Your task to perform on an android device: turn pop-ups off in chrome Image 0: 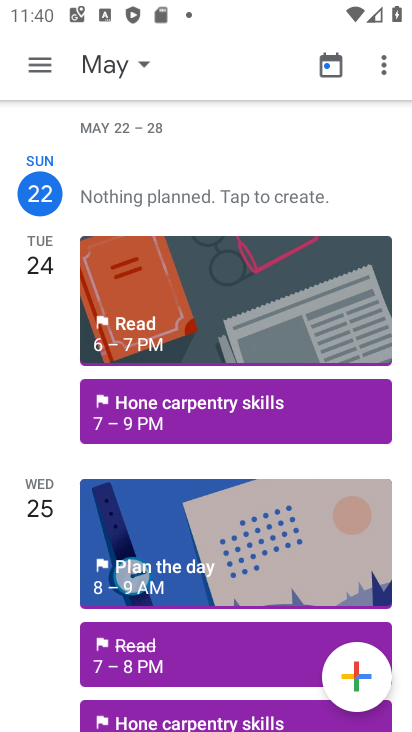
Step 0: press home button
Your task to perform on an android device: turn pop-ups off in chrome Image 1: 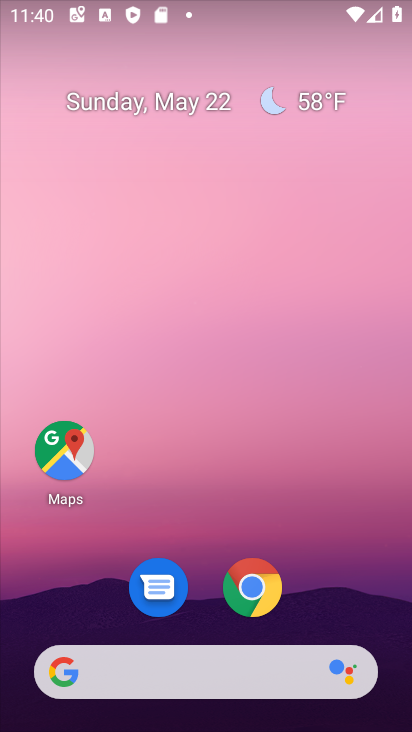
Step 1: drag from (229, 518) to (227, 115)
Your task to perform on an android device: turn pop-ups off in chrome Image 2: 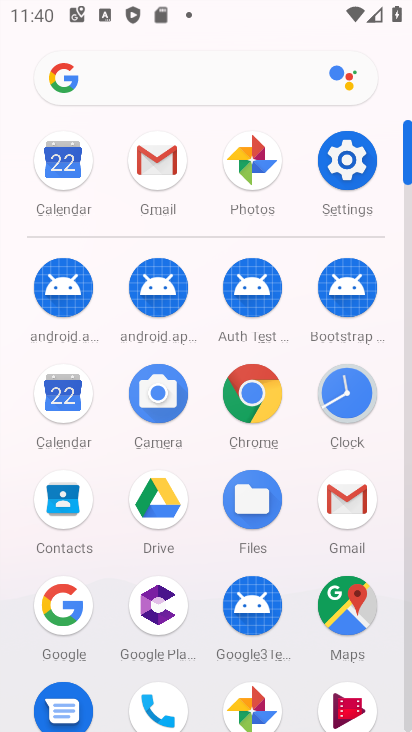
Step 2: click (249, 378)
Your task to perform on an android device: turn pop-ups off in chrome Image 3: 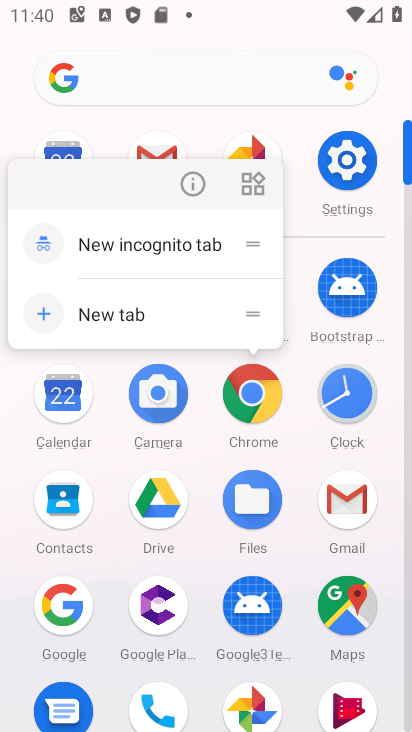
Step 3: click (249, 391)
Your task to perform on an android device: turn pop-ups off in chrome Image 4: 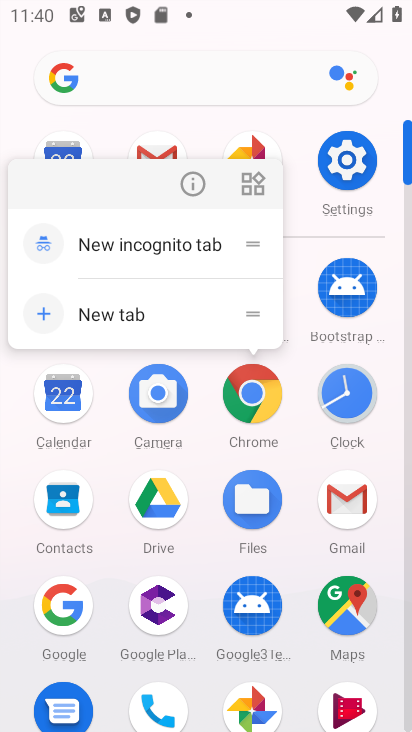
Step 4: click (249, 391)
Your task to perform on an android device: turn pop-ups off in chrome Image 5: 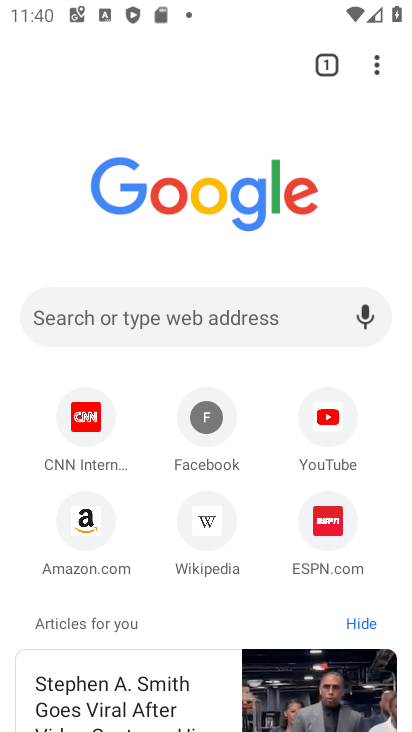
Step 5: click (367, 65)
Your task to perform on an android device: turn pop-ups off in chrome Image 6: 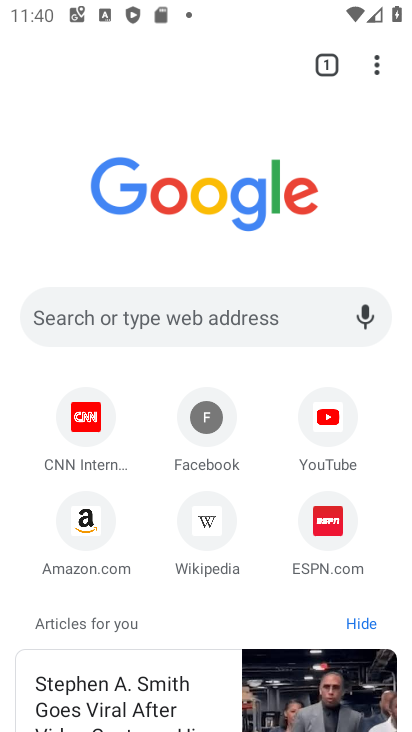
Step 6: click (371, 63)
Your task to perform on an android device: turn pop-ups off in chrome Image 7: 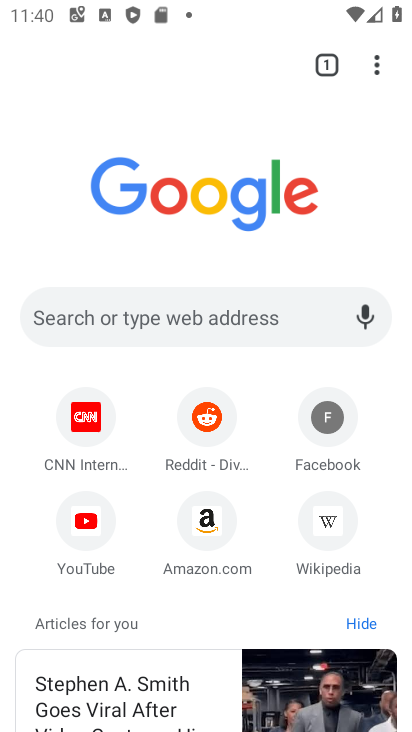
Step 7: click (371, 65)
Your task to perform on an android device: turn pop-ups off in chrome Image 8: 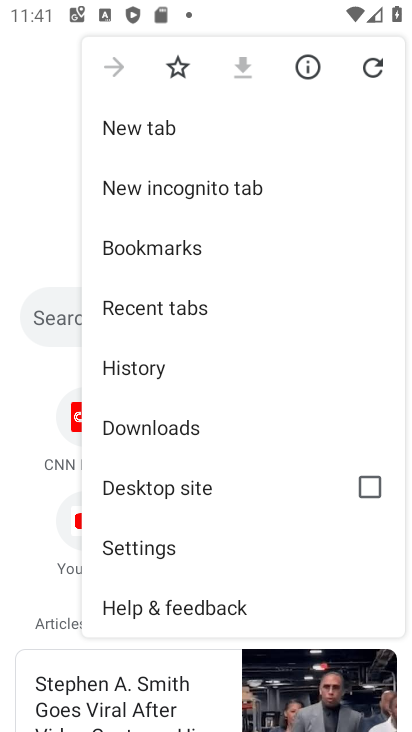
Step 8: click (191, 544)
Your task to perform on an android device: turn pop-ups off in chrome Image 9: 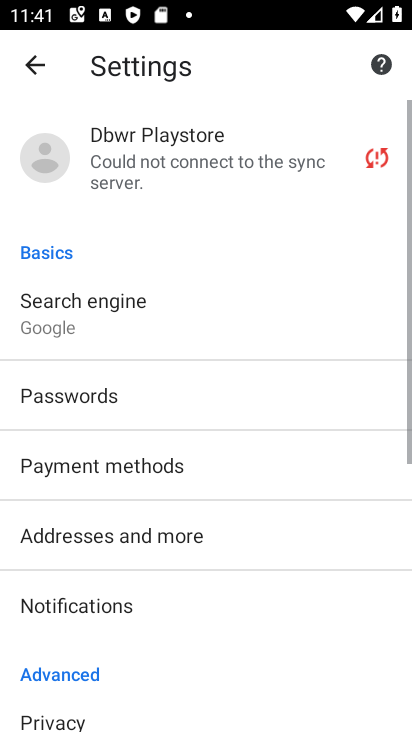
Step 9: drag from (217, 459) to (278, 138)
Your task to perform on an android device: turn pop-ups off in chrome Image 10: 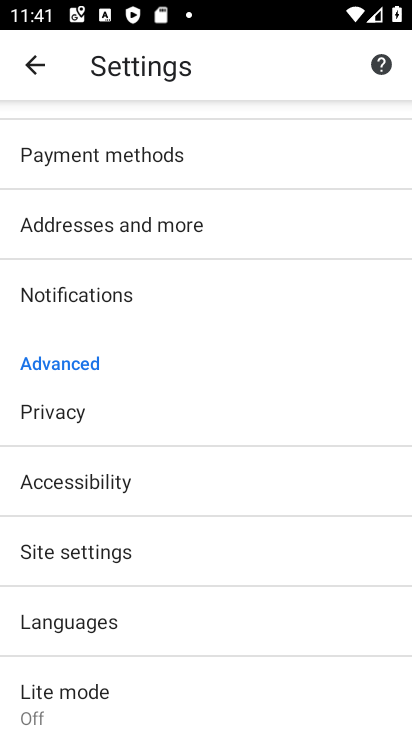
Step 10: click (140, 548)
Your task to perform on an android device: turn pop-ups off in chrome Image 11: 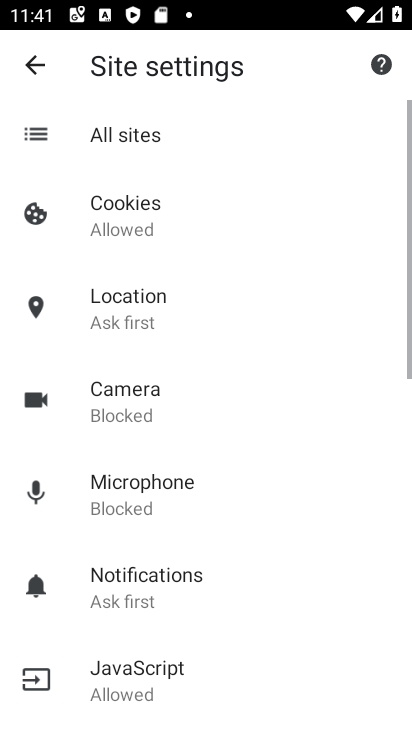
Step 11: drag from (226, 450) to (254, 159)
Your task to perform on an android device: turn pop-ups off in chrome Image 12: 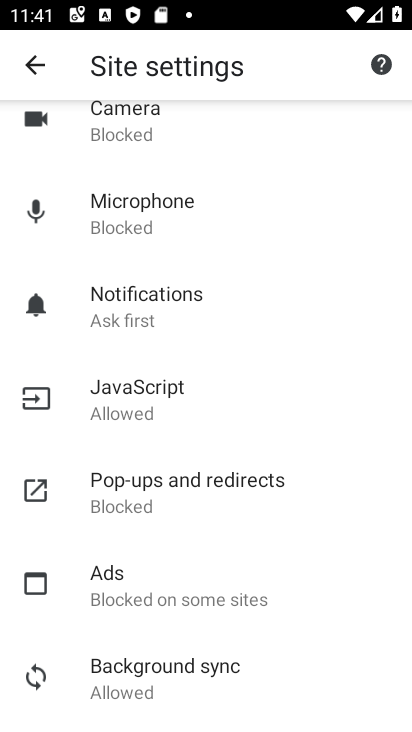
Step 12: click (231, 468)
Your task to perform on an android device: turn pop-ups off in chrome Image 13: 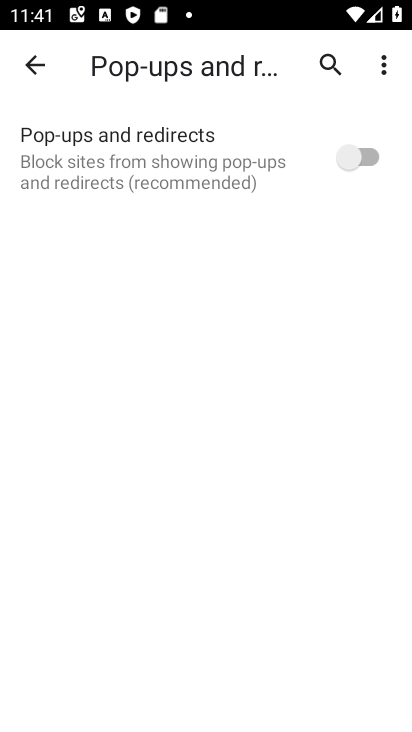
Step 13: task complete